Your task to perform on an android device: check android version Image 0: 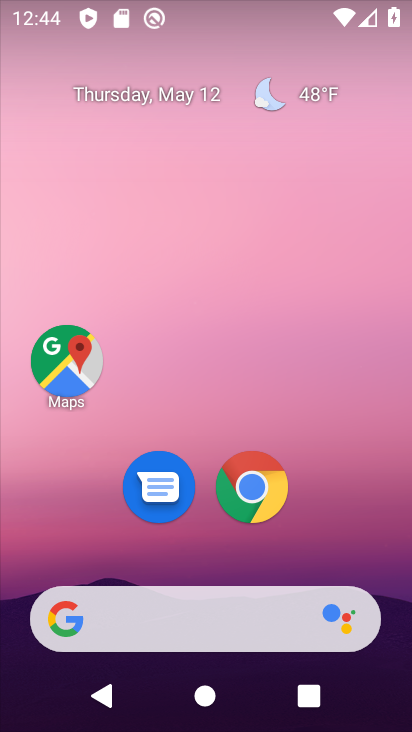
Step 0: drag from (265, 603) to (329, 70)
Your task to perform on an android device: check android version Image 1: 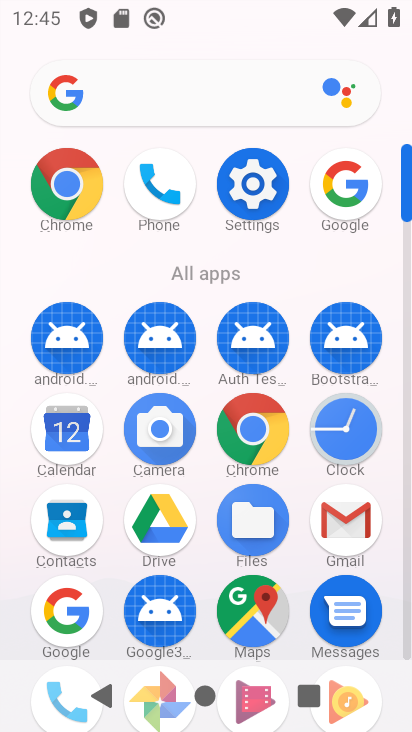
Step 1: click (244, 217)
Your task to perform on an android device: check android version Image 2: 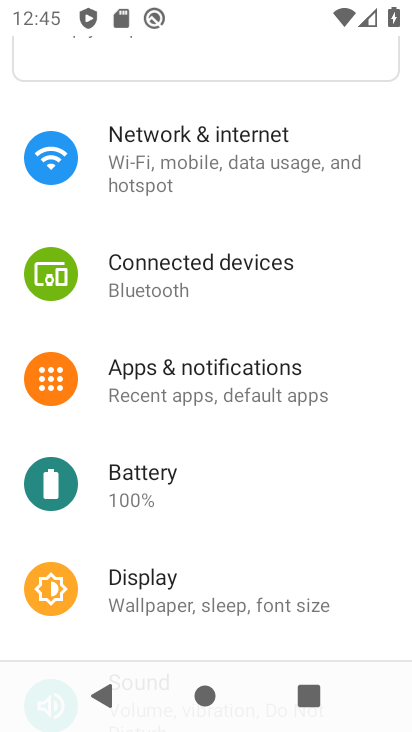
Step 2: drag from (237, 438) to (226, 208)
Your task to perform on an android device: check android version Image 3: 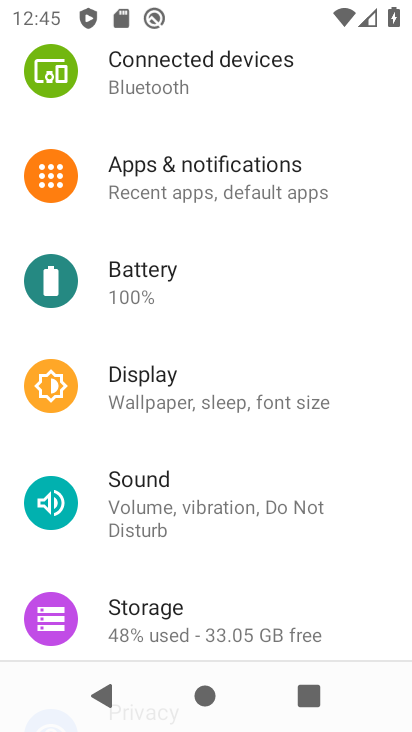
Step 3: drag from (158, 409) to (104, 45)
Your task to perform on an android device: check android version Image 4: 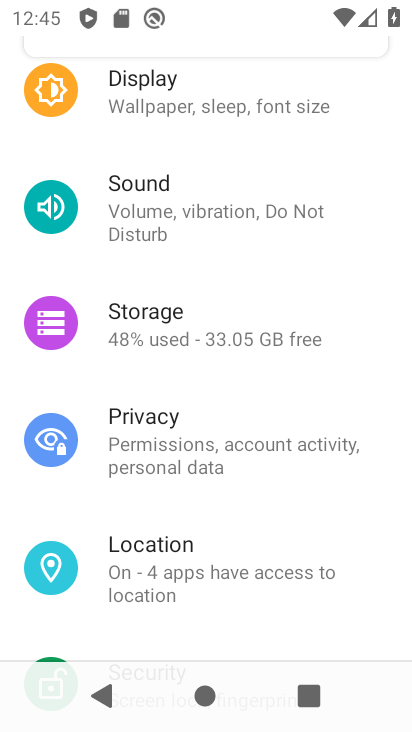
Step 4: drag from (150, 509) to (239, 131)
Your task to perform on an android device: check android version Image 5: 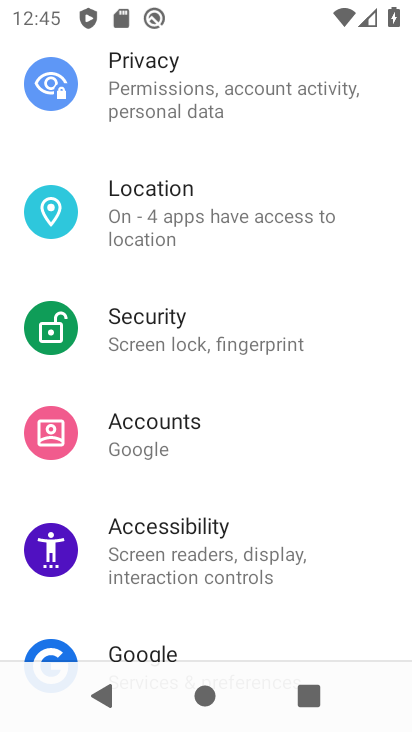
Step 5: drag from (255, 514) to (375, 51)
Your task to perform on an android device: check android version Image 6: 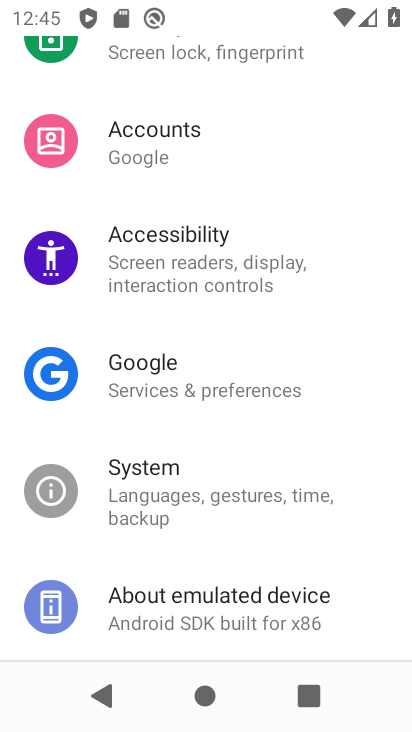
Step 6: drag from (201, 544) to (215, 200)
Your task to perform on an android device: check android version Image 7: 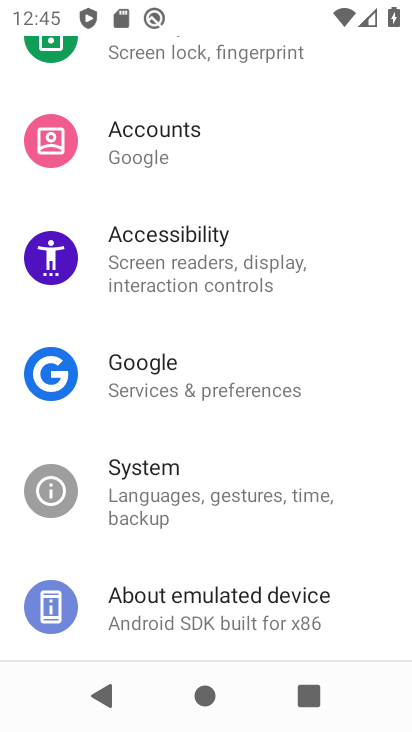
Step 7: click (164, 589)
Your task to perform on an android device: check android version Image 8: 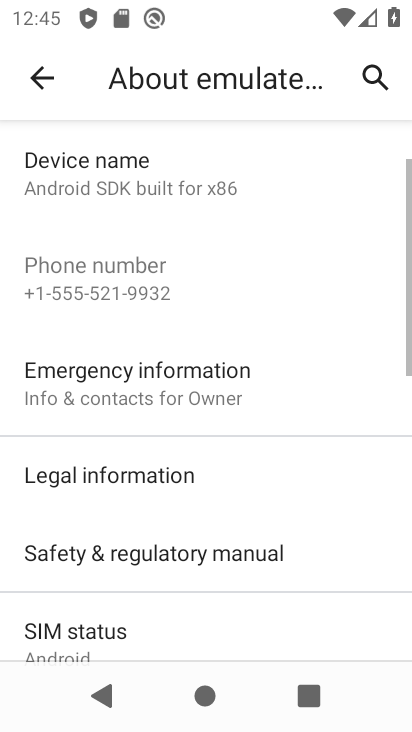
Step 8: drag from (115, 561) to (295, 225)
Your task to perform on an android device: check android version Image 9: 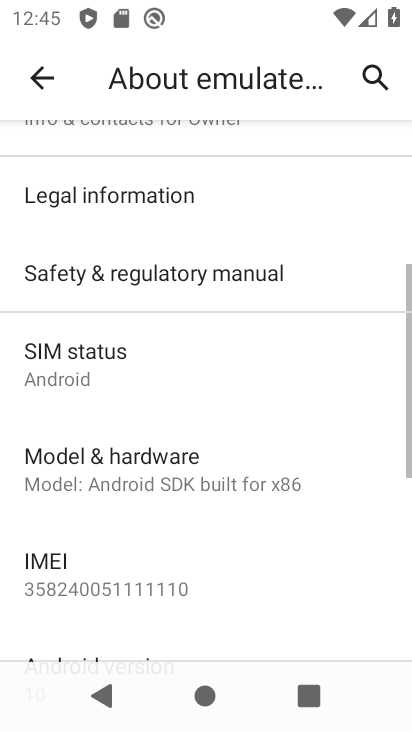
Step 9: drag from (166, 490) to (154, 278)
Your task to perform on an android device: check android version Image 10: 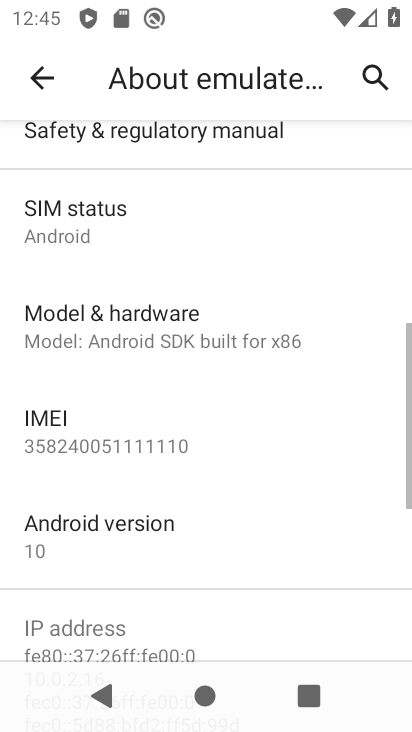
Step 10: click (186, 561)
Your task to perform on an android device: check android version Image 11: 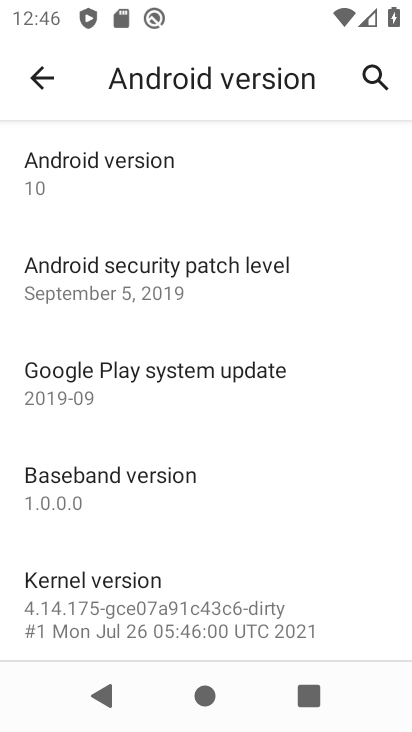
Step 11: task complete